Your task to perform on an android device: change notification settings in the gmail app Image 0: 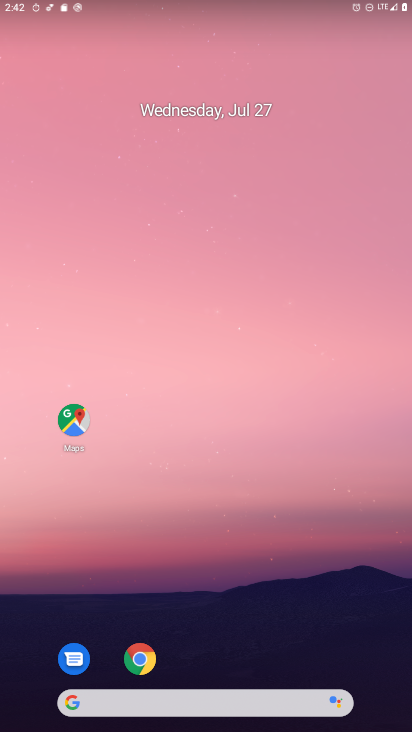
Step 0: drag from (295, 526) to (156, 89)
Your task to perform on an android device: change notification settings in the gmail app Image 1: 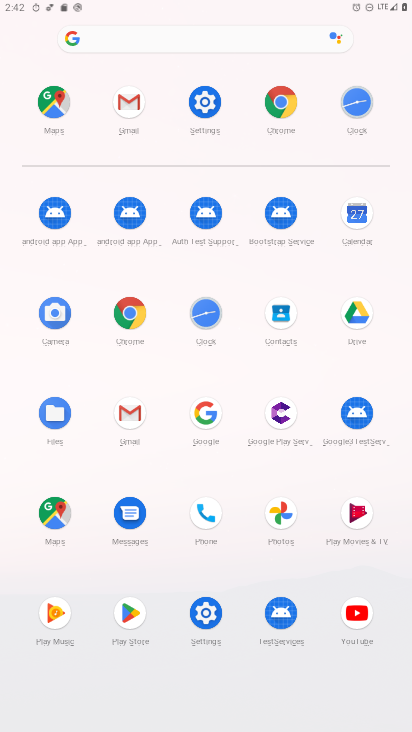
Step 1: click (134, 109)
Your task to perform on an android device: change notification settings in the gmail app Image 2: 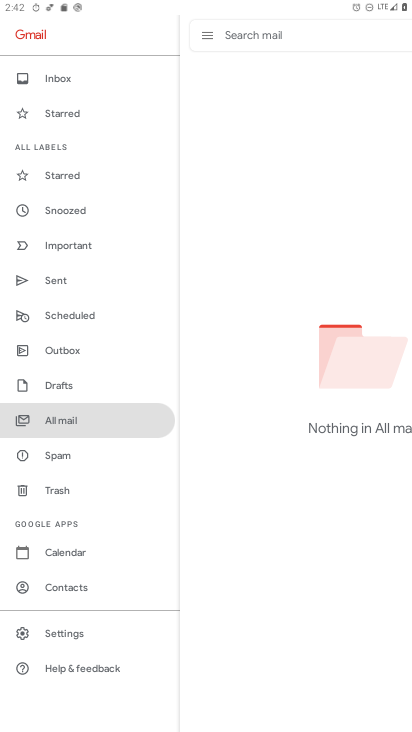
Step 2: click (75, 633)
Your task to perform on an android device: change notification settings in the gmail app Image 3: 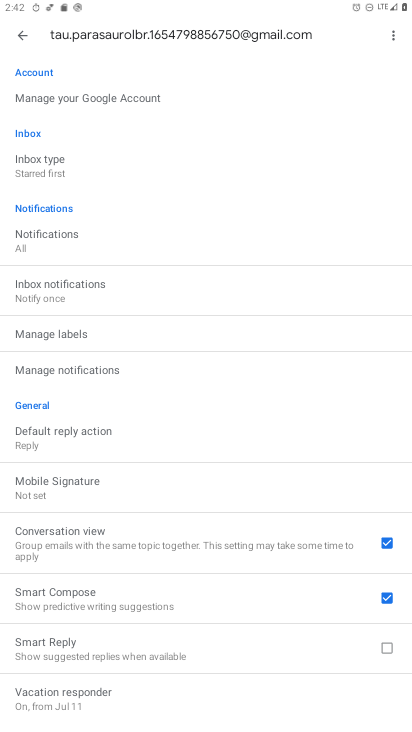
Step 3: click (88, 374)
Your task to perform on an android device: change notification settings in the gmail app Image 4: 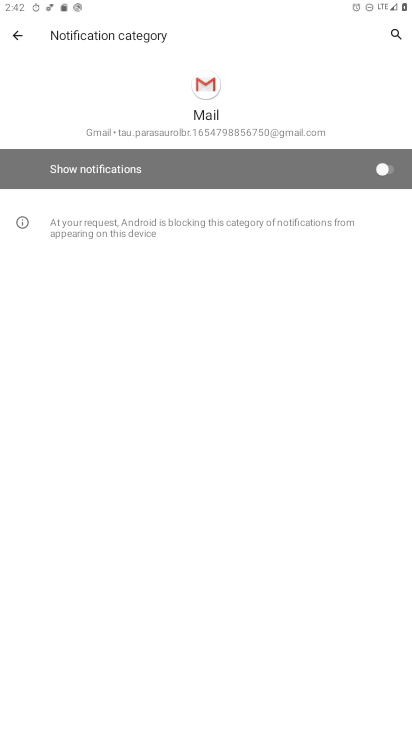
Step 4: click (359, 180)
Your task to perform on an android device: change notification settings in the gmail app Image 5: 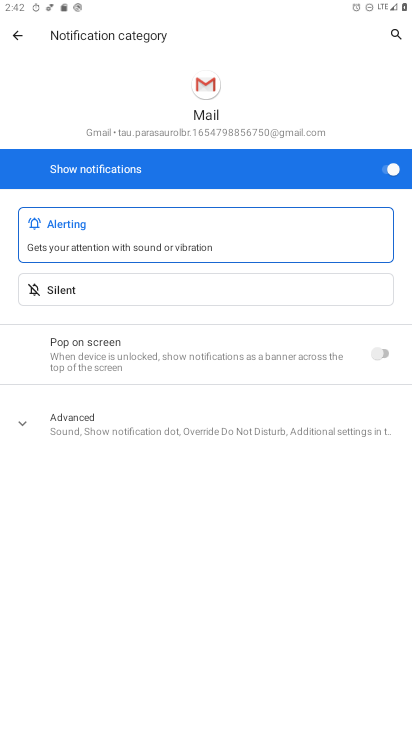
Step 5: task complete